Your task to perform on an android device: see tabs open on other devices in the chrome app Image 0: 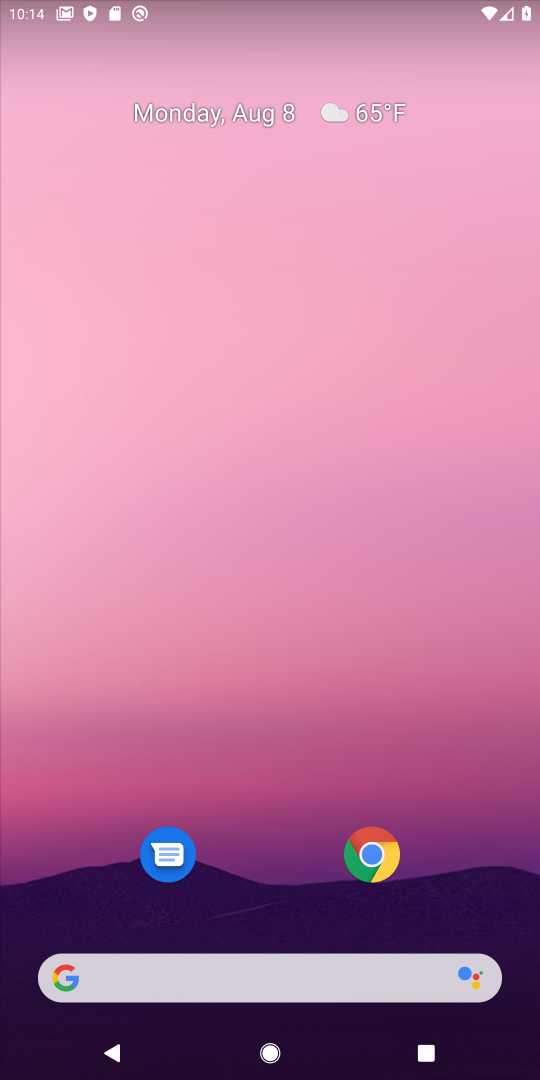
Step 0: click (381, 854)
Your task to perform on an android device: see tabs open on other devices in the chrome app Image 1: 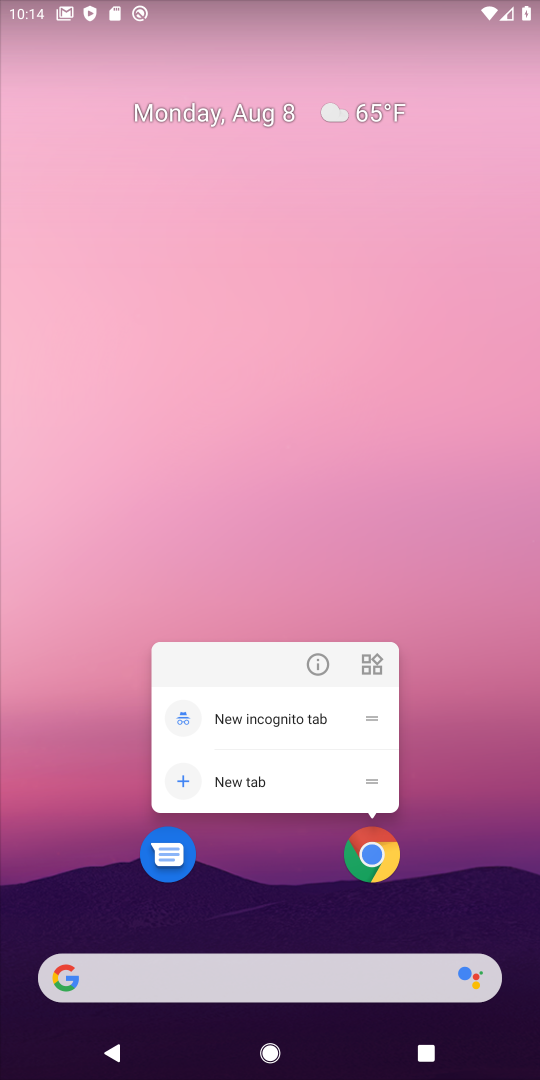
Step 1: click (316, 504)
Your task to perform on an android device: see tabs open on other devices in the chrome app Image 2: 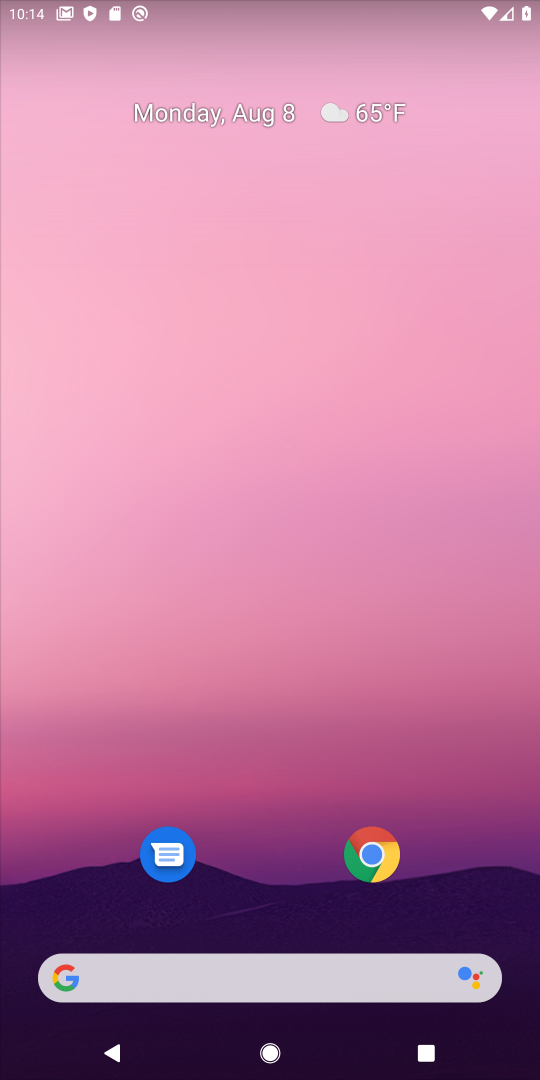
Step 2: click (362, 849)
Your task to perform on an android device: see tabs open on other devices in the chrome app Image 3: 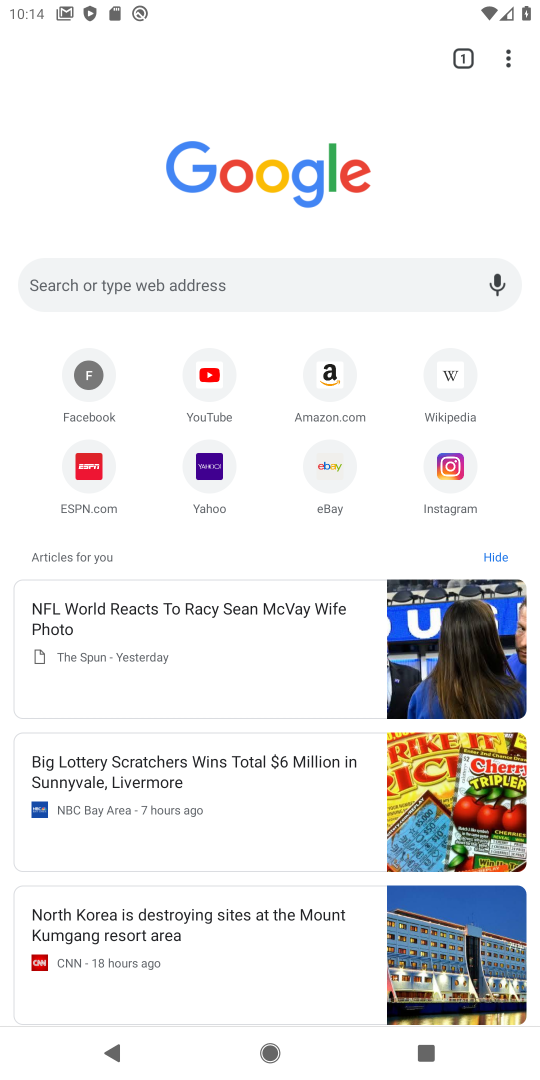
Step 3: click (520, 61)
Your task to perform on an android device: see tabs open on other devices in the chrome app Image 4: 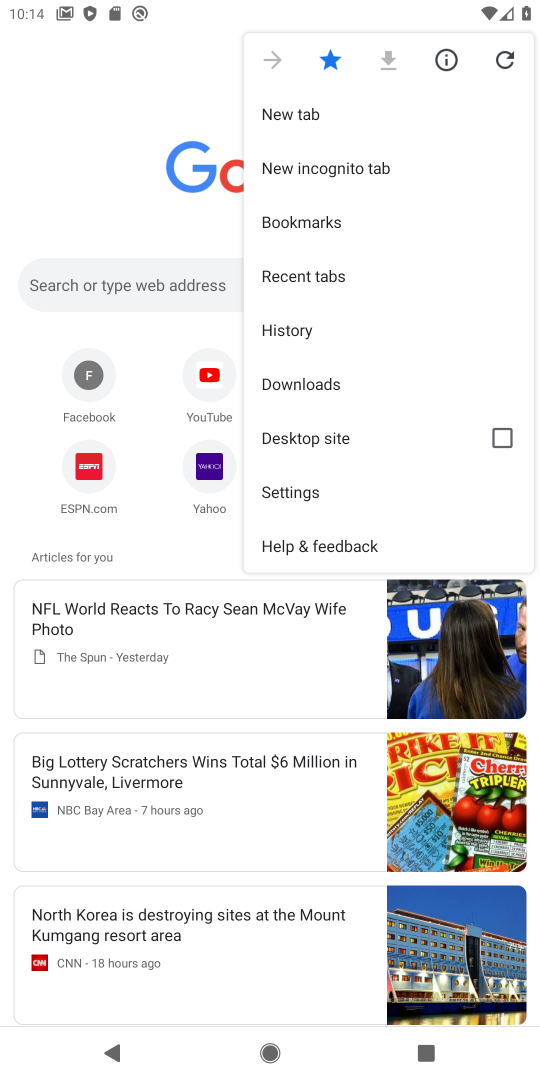
Step 4: click (306, 283)
Your task to perform on an android device: see tabs open on other devices in the chrome app Image 5: 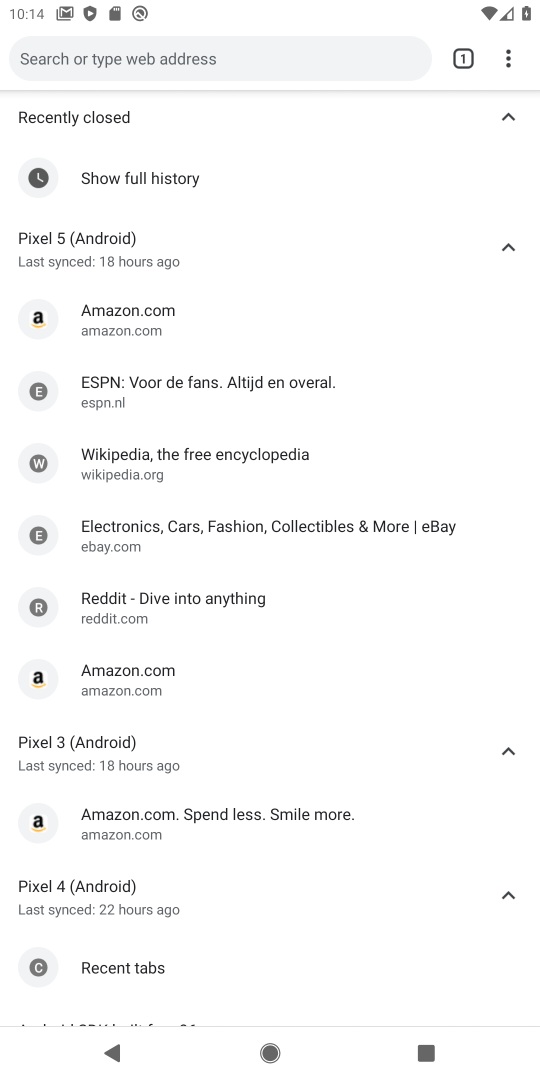
Step 5: task complete